Your task to perform on an android device: turn notification dots on Image 0: 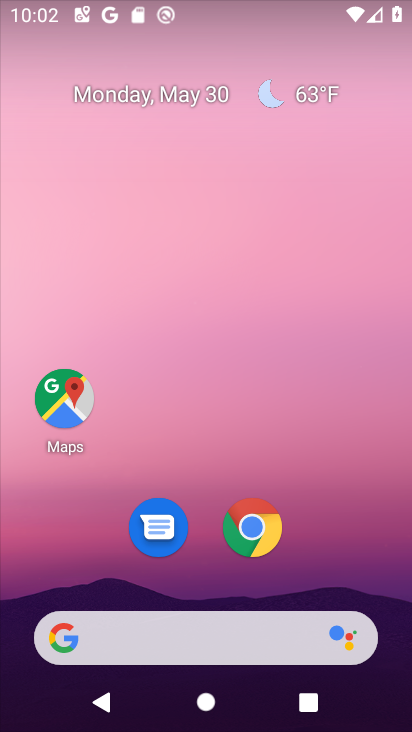
Step 0: drag from (333, 541) to (329, 193)
Your task to perform on an android device: turn notification dots on Image 1: 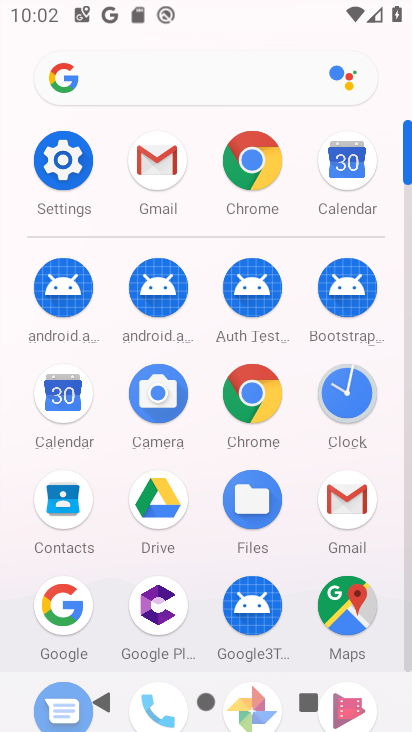
Step 1: click (65, 150)
Your task to perform on an android device: turn notification dots on Image 2: 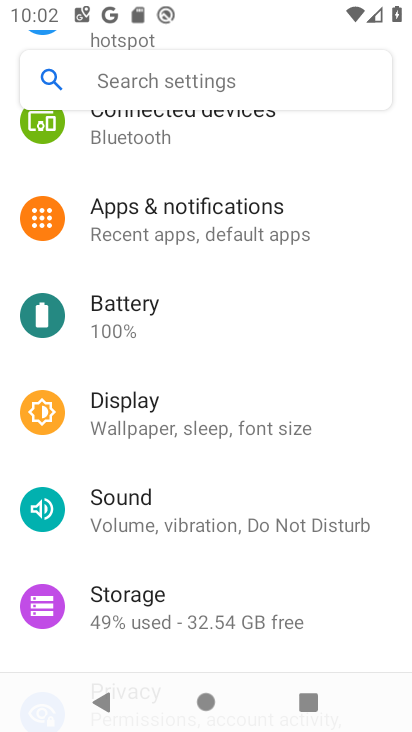
Step 2: click (192, 72)
Your task to perform on an android device: turn notification dots on Image 3: 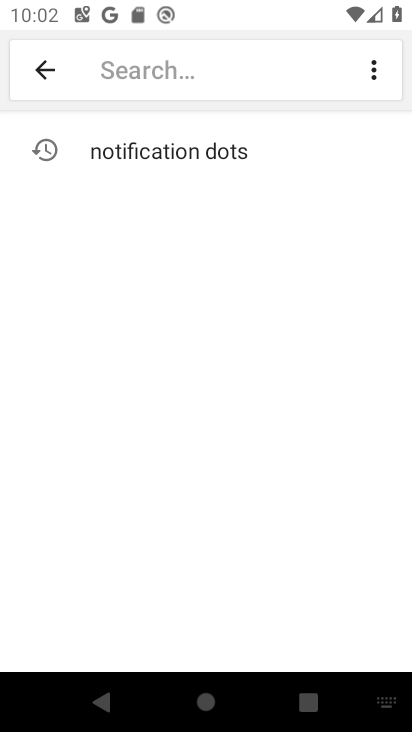
Step 3: click (208, 147)
Your task to perform on an android device: turn notification dots on Image 4: 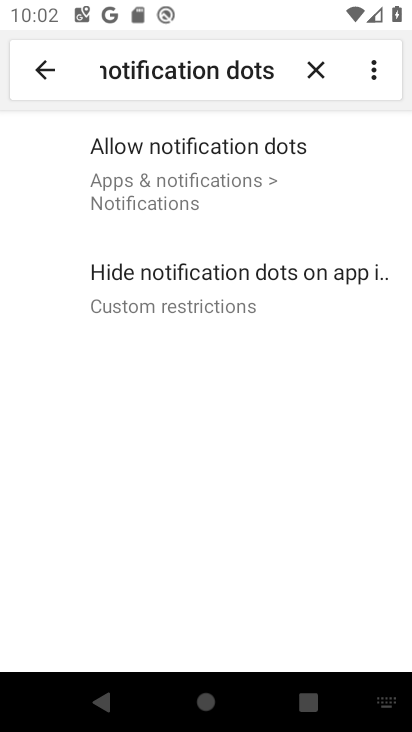
Step 4: click (209, 154)
Your task to perform on an android device: turn notification dots on Image 5: 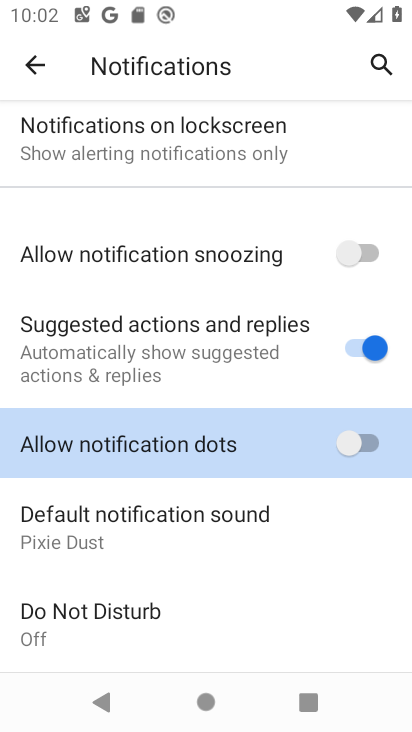
Step 5: click (350, 418)
Your task to perform on an android device: turn notification dots on Image 6: 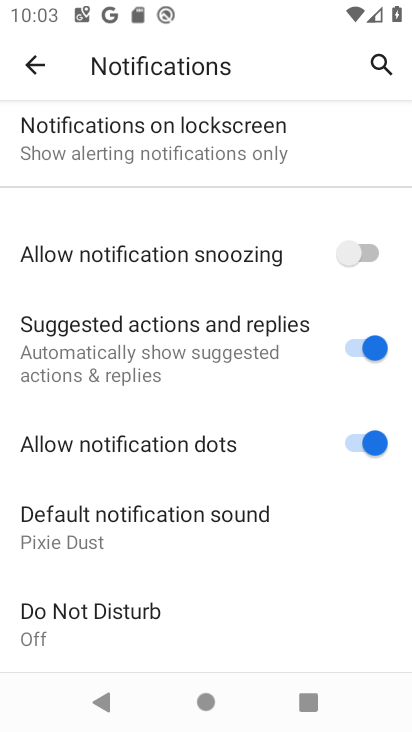
Step 6: task complete